Your task to perform on an android device: Open Android settings Image 0: 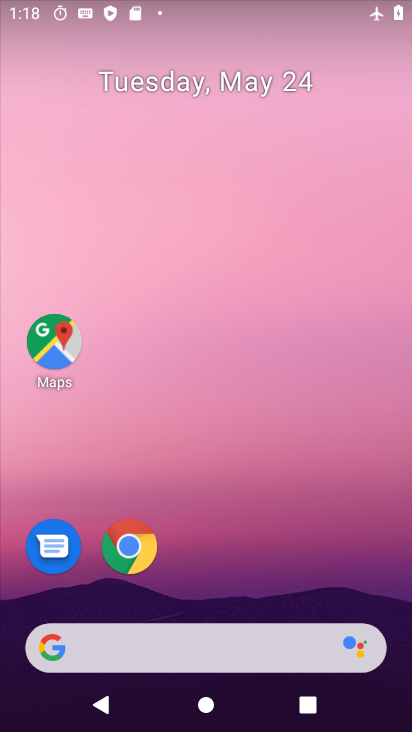
Step 0: click (329, 17)
Your task to perform on an android device: Open Android settings Image 1: 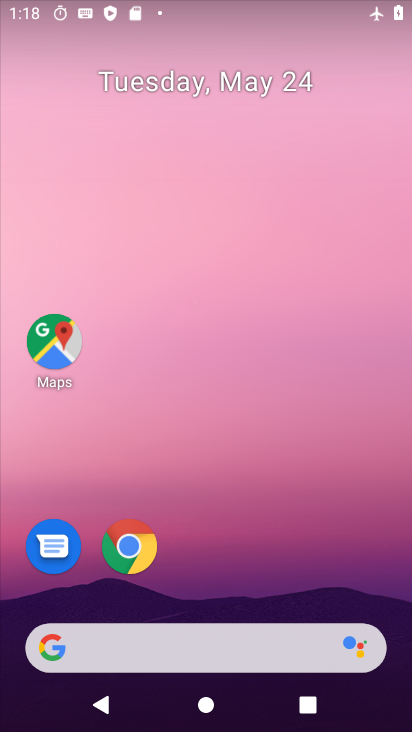
Step 1: drag from (172, 617) to (232, 47)
Your task to perform on an android device: Open Android settings Image 2: 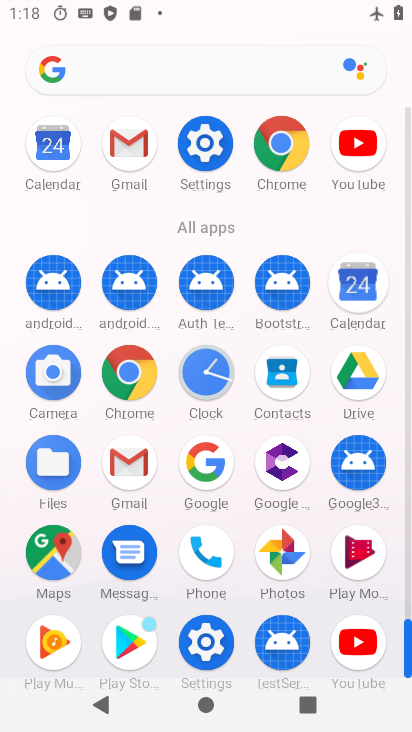
Step 2: click (183, 141)
Your task to perform on an android device: Open Android settings Image 3: 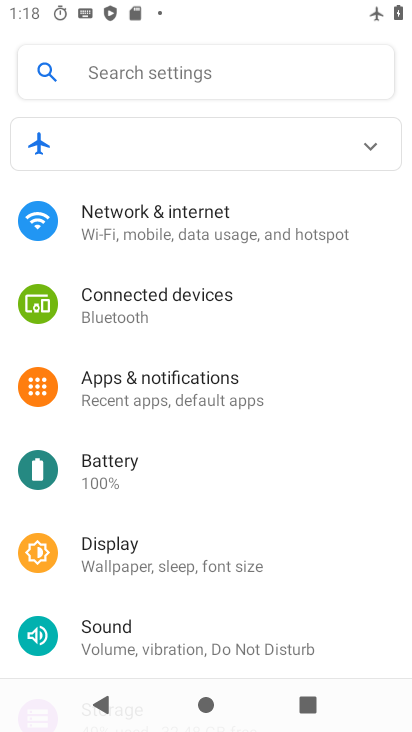
Step 3: drag from (209, 571) to (344, 13)
Your task to perform on an android device: Open Android settings Image 4: 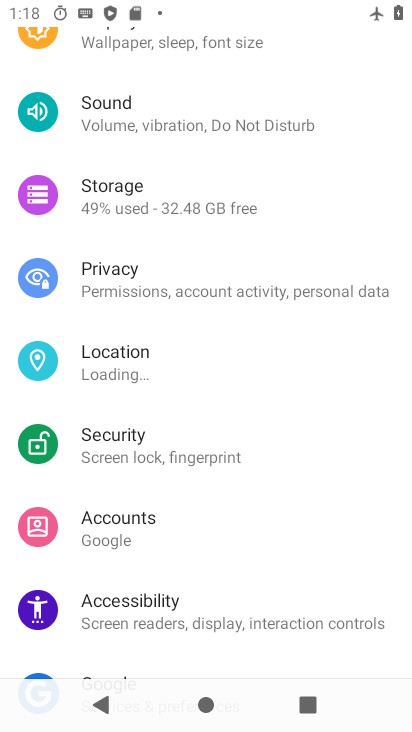
Step 4: drag from (151, 611) to (247, 121)
Your task to perform on an android device: Open Android settings Image 5: 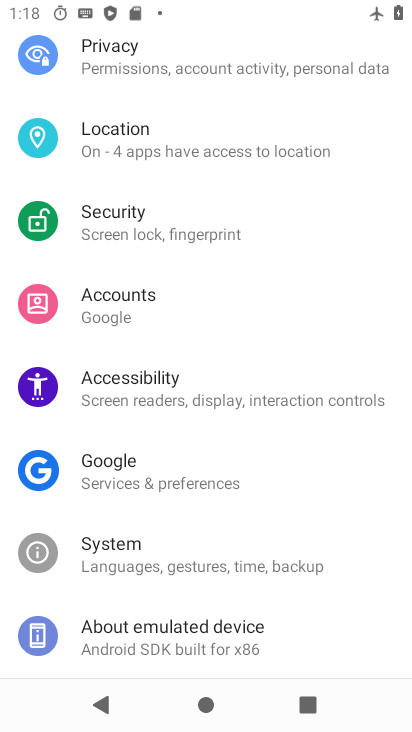
Step 5: click (149, 612)
Your task to perform on an android device: Open Android settings Image 6: 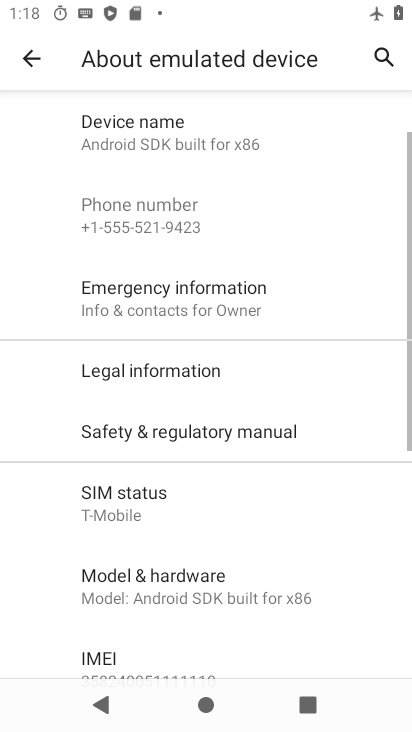
Step 6: drag from (146, 608) to (215, 163)
Your task to perform on an android device: Open Android settings Image 7: 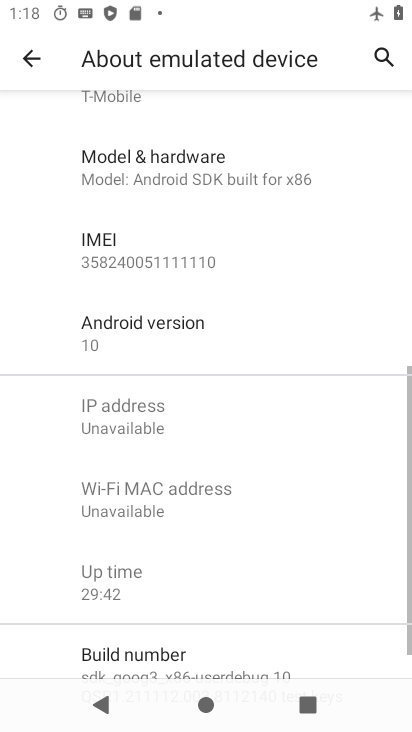
Step 7: drag from (215, 154) to (217, 725)
Your task to perform on an android device: Open Android settings Image 8: 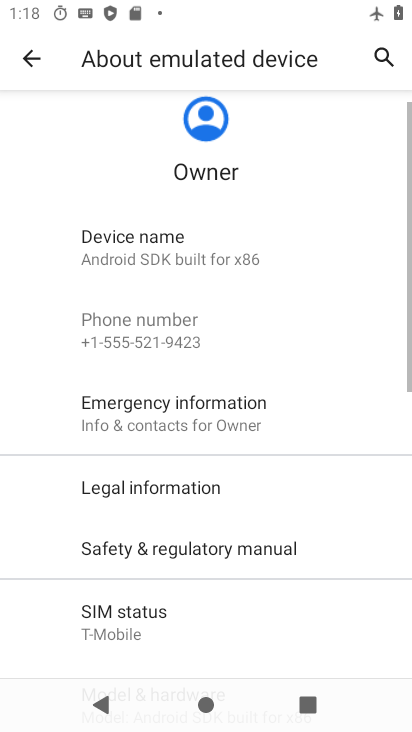
Step 8: drag from (193, 570) to (292, 3)
Your task to perform on an android device: Open Android settings Image 9: 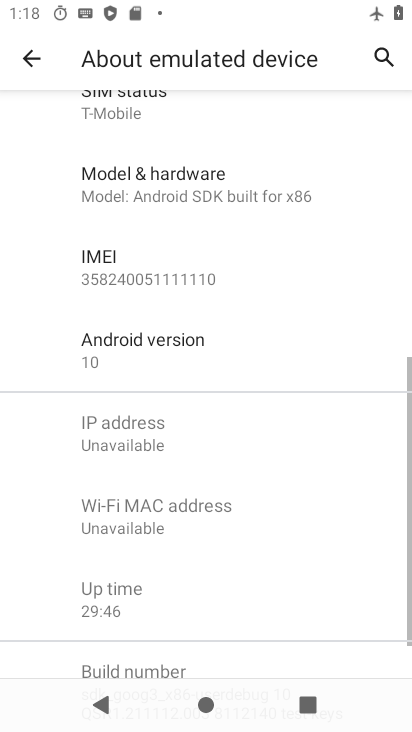
Step 9: drag from (177, 541) to (284, 0)
Your task to perform on an android device: Open Android settings Image 10: 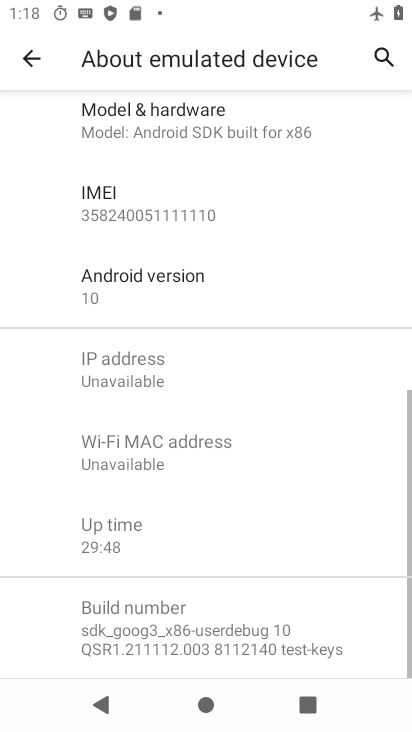
Step 10: click (150, 284)
Your task to perform on an android device: Open Android settings Image 11: 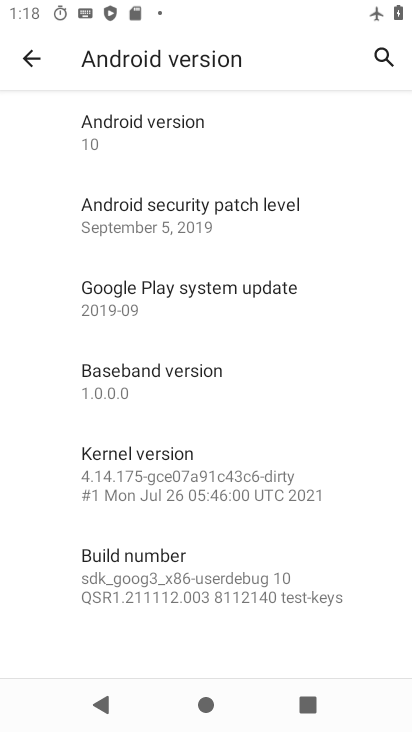
Step 11: drag from (190, 533) to (278, 193)
Your task to perform on an android device: Open Android settings Image 12: 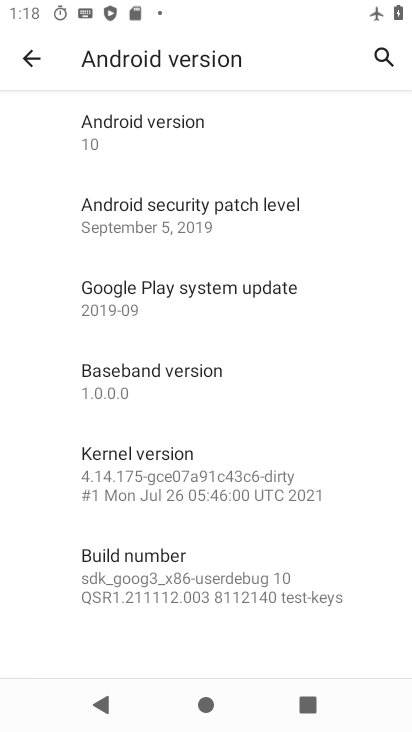
Step 12: click (187, 147)
Your task to perform on an android device: Open Android settings Image 13: 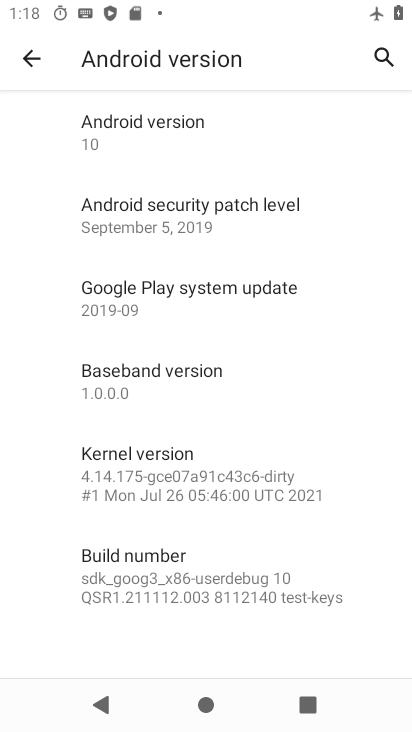
Step 13: task complete